Your task to perform on an android device: Search for usb-c to usb-b on ebay.com, select the first entry, add it to the cart, then select checkout. Image 0: 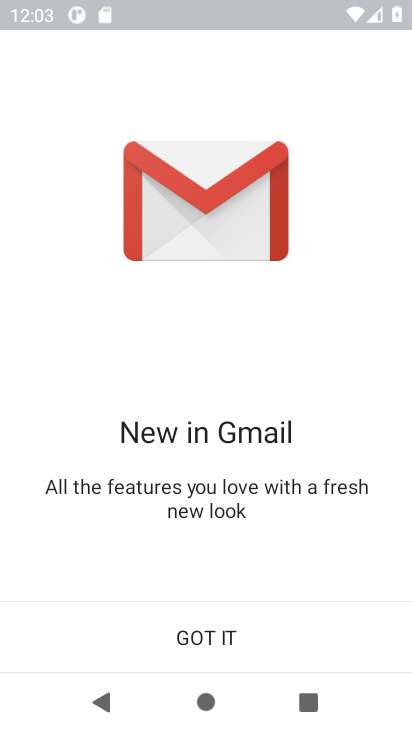
Step 0: press home button
Your task to perform on an android device: Search for usb-c to usb-b on ebay.com, select the first entry, add it to the cart, then select checkout. Image 1: 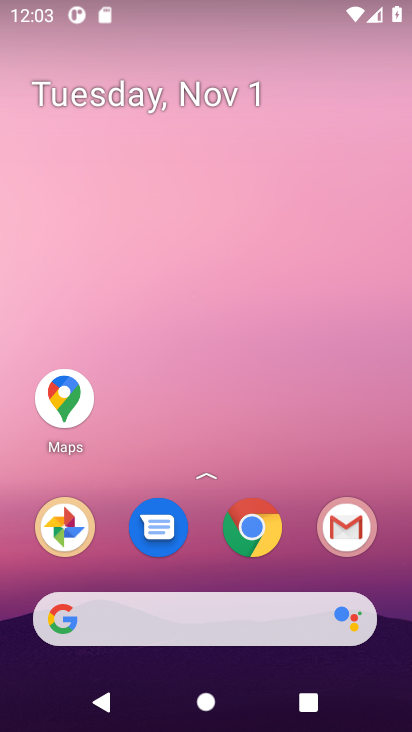
Step 1: click (252, 527)
Your task to perform on an android device: Search for usb-c to usb-b on ebay.com, select the first entry, add it to the cart, then select checkout. Image 2: 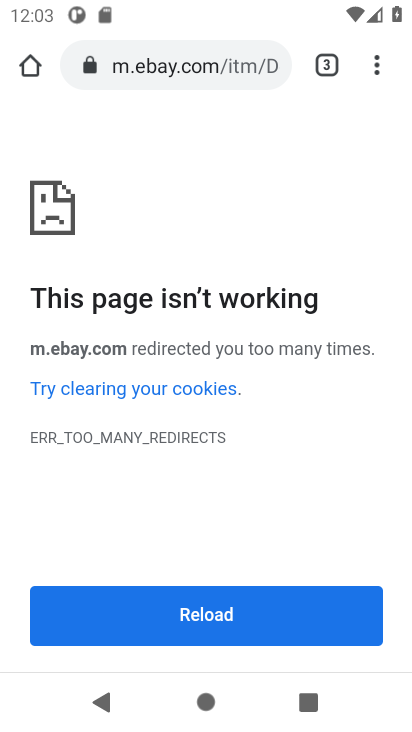
Step 2: click (180, 45)
Your task to perform on an android device: Search for usb-c to usb-b on ebay.com, select the first entry, add it to the cart, then select checkout. Image 3: 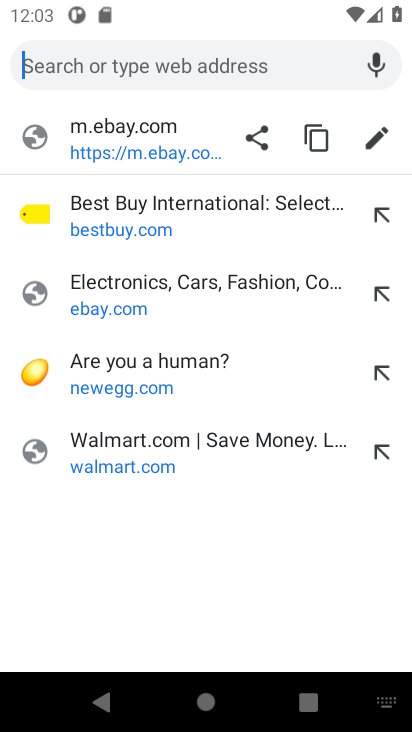
Step 3: type "ebay.com"
Your task to perform on an android device: Search for usb-c to usb-b on ebay.com, select the first entry, add it to the cart, then select checkout. Image 4: 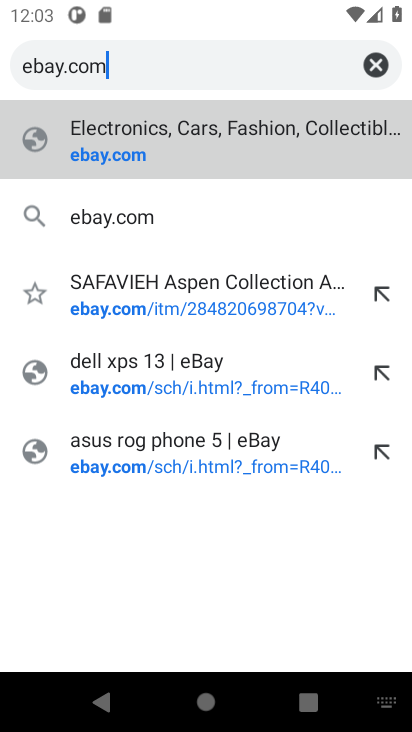
Step 4: click (119, 132)
Your task to perform on an android device: Search for usb-c to usb-b on ebay.com, select the first entry, add it to the cart, then select checkout. Image 5: 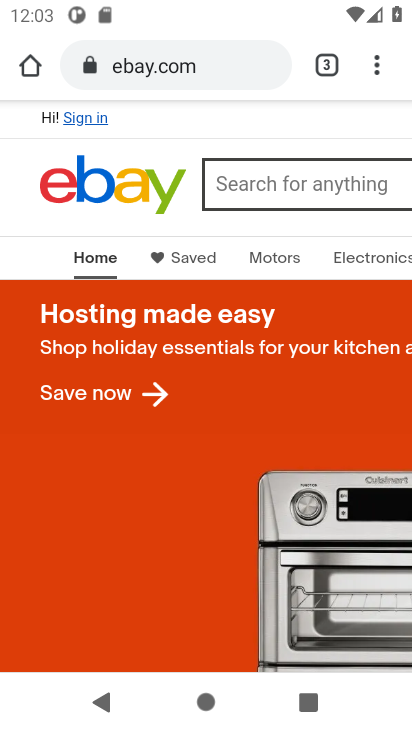
Step 5: click (282, 174)
Your task to perform on an android device: Search for usb-c to usb-b on ebay.com, select the first entry, add it to the cart, then select checkout. Image 6: 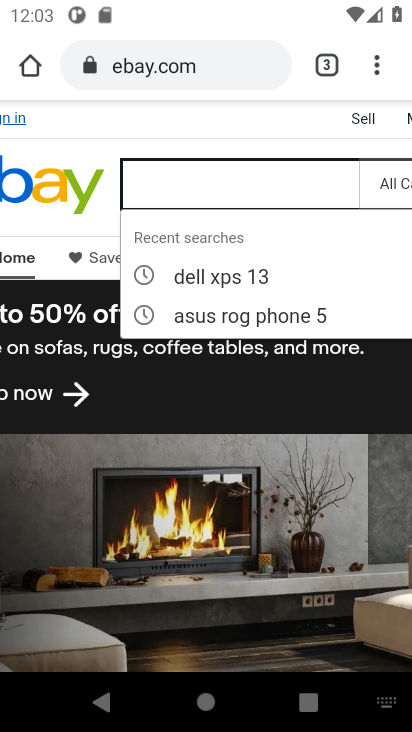
Step 6: type "usb-c to usb-b"
Your task to perform on an android device: Search for usb-c to usb-b on ebay.com, select the first entry, add it to the cart, then select checkout. Image 7: 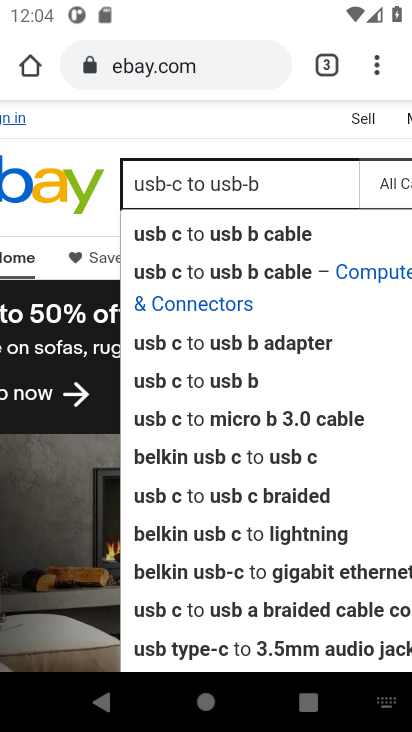
Step 7: click (155, 236)
Your task to perform on an android device: Search for usb-c to usb-b on ebay.com, select the first entry, add it to the cart, then select checkout. Image 8: 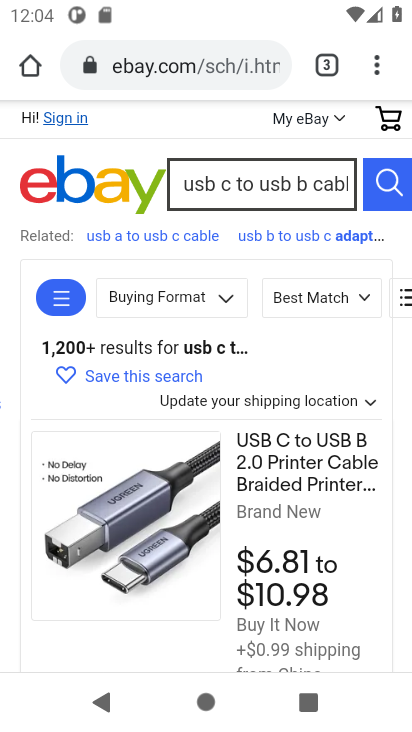
Step 8: drag from (271, 517) to (239, 227)
Your task to perform on an android device: Search for usb-c to usb-b on ebay.com, select the first entry, add it to the cart, then select checkout. Image 9: 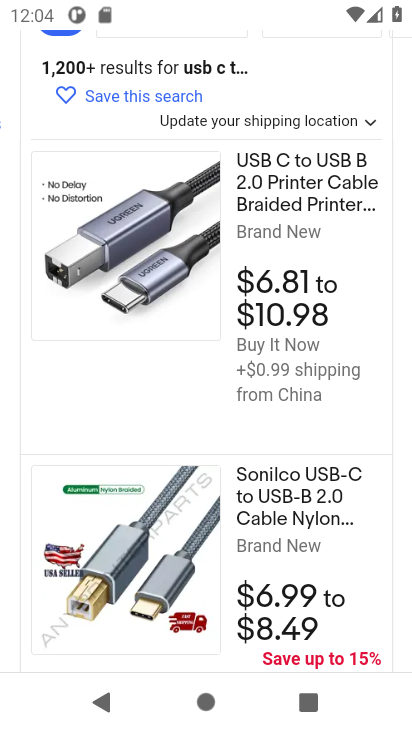
Step 9: click (261, 175)
Your task to perform on an android device: Search for usb-c to usb-b on ebay.com, select the first entry, add it to the cart, then select checkout. Image 10: 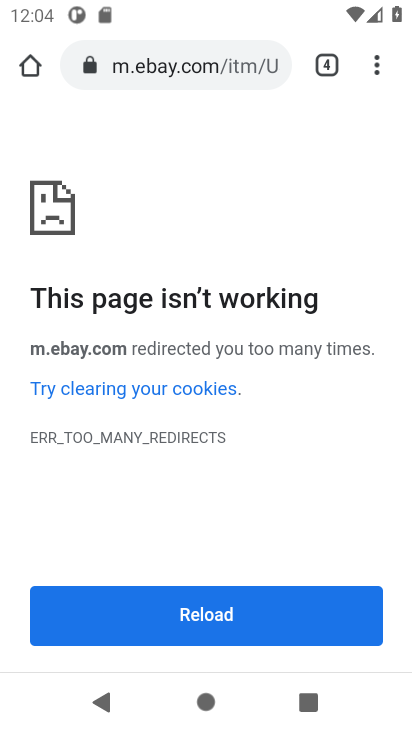
Step 10: click (201, 618)
Your task to perform on an android device: Search for usb-c to usb-b on ebay.com, select the first entry, add it to the cart, then select checkout. Image 11: 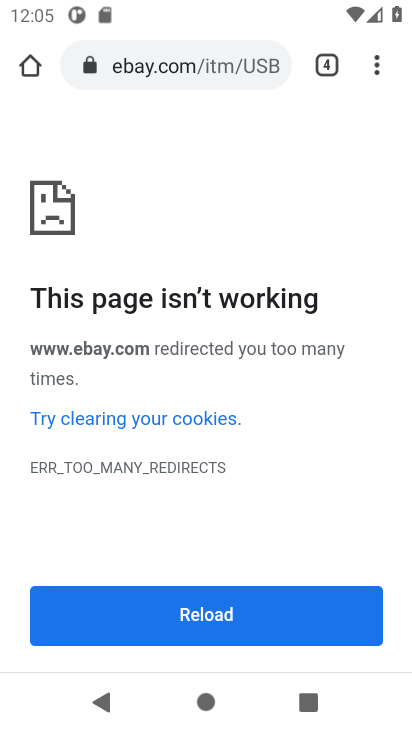
Step 11: task complete